Your task to perform on an android device: toggle data saver in the chrome app Image 0: 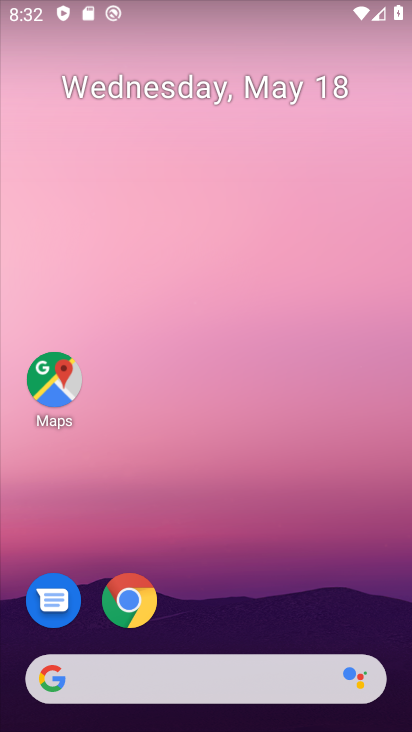
Step 0: click (130, 595)
Your task to perform on an android device: toggle data saver in the chrome app Image 1: 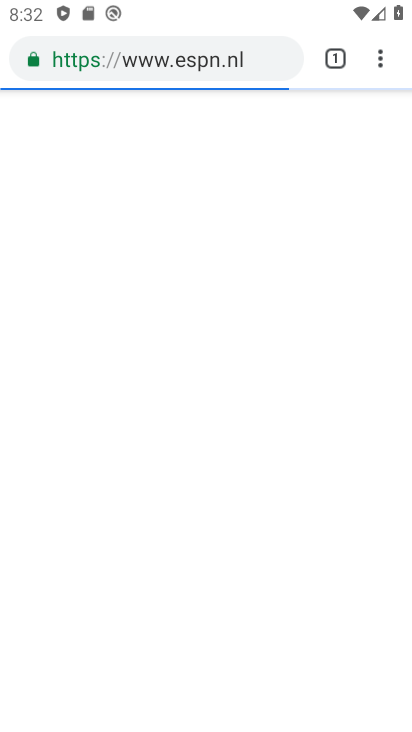
Step 1: click (379, 66)
Your task to perform on an android device: toggle data saver in the chrome app Image 2: 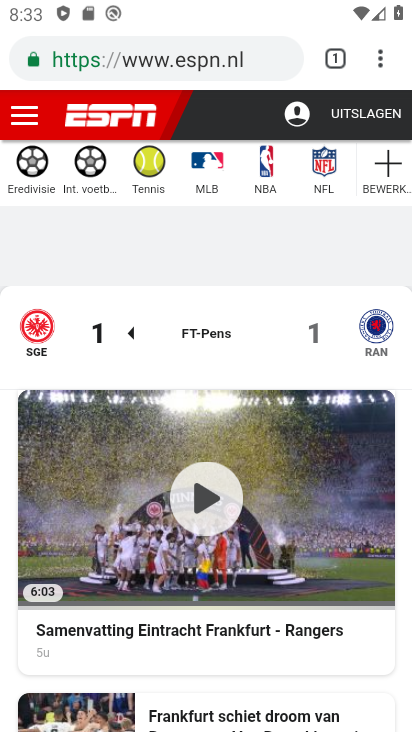
Step 2: click (378, 62)
Your task to perform on an android device: toggle data saver in the chrome app Image 3: 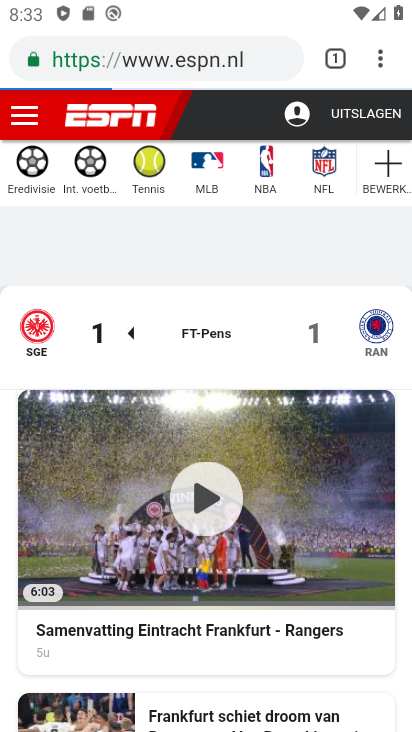
Step 3: click (377, 63)
Your task to perform on an android device: toggle data saver in the chrome app Image 4: 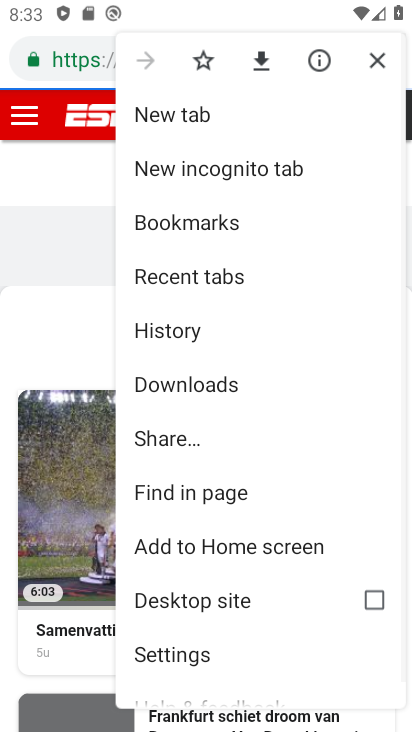
Step 4: click (181, 653)
Your task to perform on an android device: toggle data saver in the chrome app Image 5: 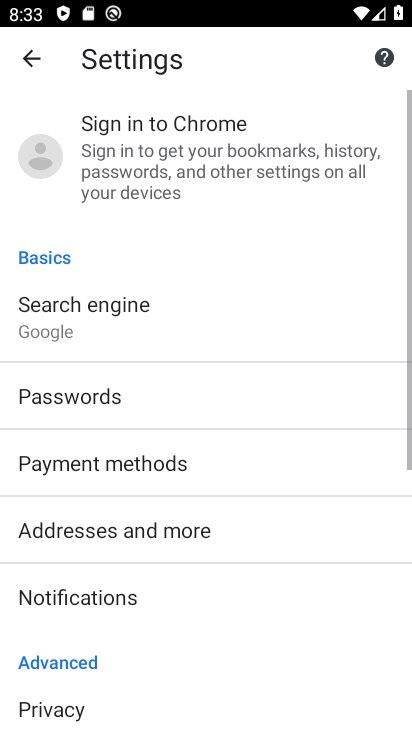
Step 5: drag from (65, 664) to (300, 206)
Your task to perform on an android device: toggle data saver in the chrome app Image 6: 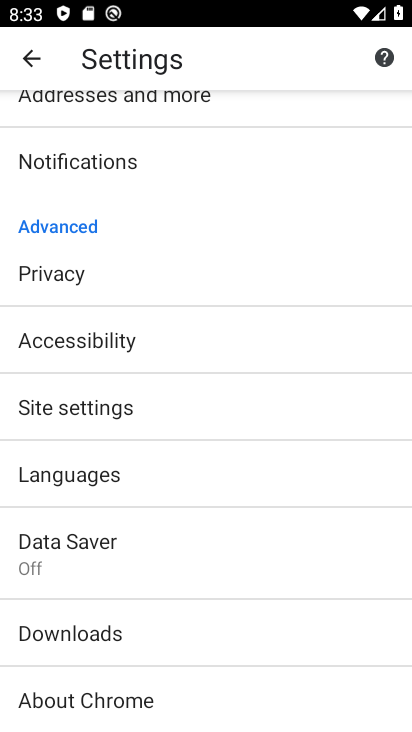
Step 6: click (81, 414)
Your task to perform on an android device: toggle data saver in the chrome app Image 7: 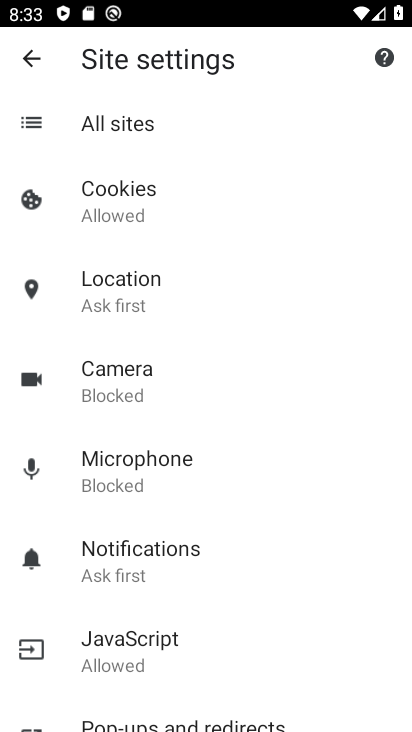
Step 7: drag from (147, 656) to (327, 91)
Your task to perform on an android device: toggle data saver in the chrome app Image 8: 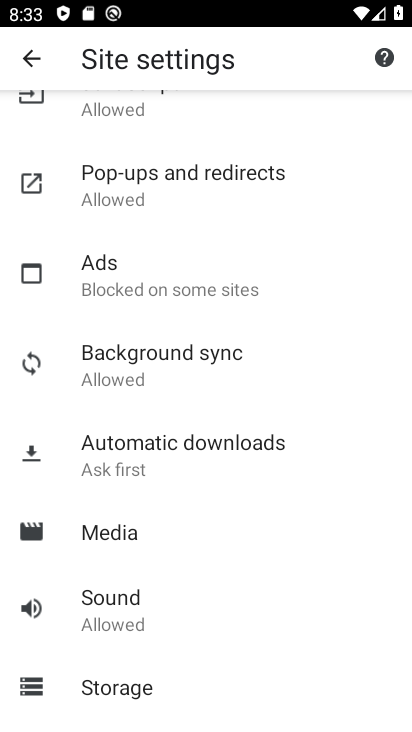
Step 8: drag from (132, 700) to (325, 217)
Your task to perform on an android device: toggle data saver in the chrome app Image 9: 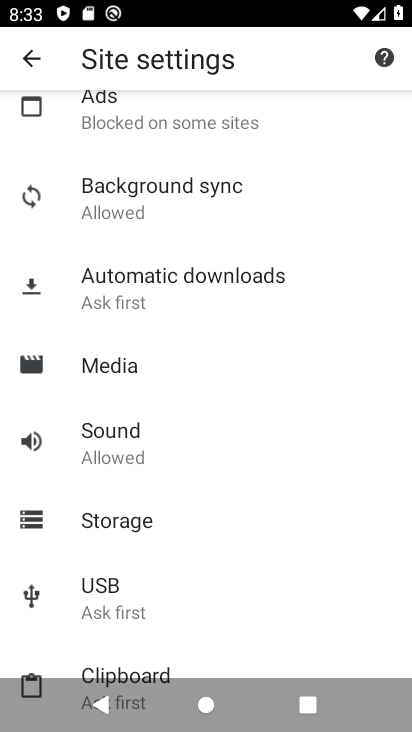
Step 9: press back button
Your task to perform on an android device: toggle data saver in the chrome app Image 10: 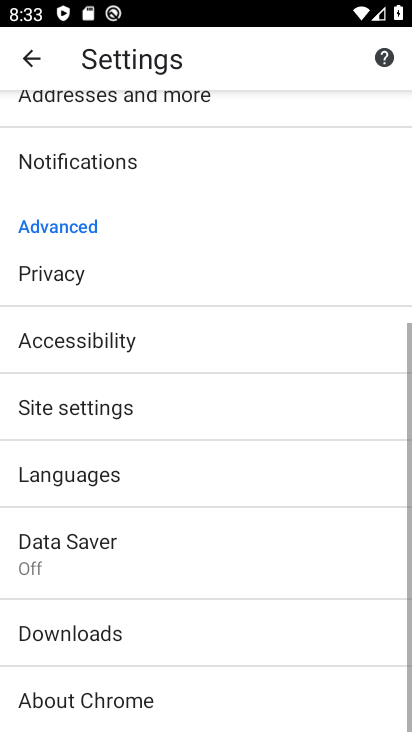
Step 10: click (105, 550)
Your task to perform on an android device: toggle data saver in the chrome app Image 11: 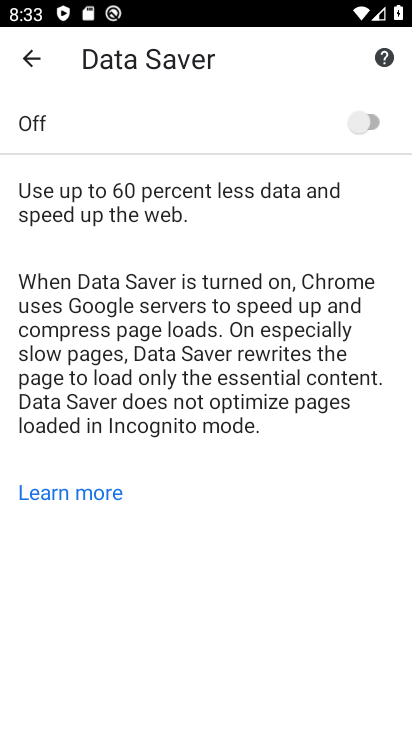
Step 11: click (367, 129)
Your task to perform on an android device: toggle data saver in the chrome app Image 12: 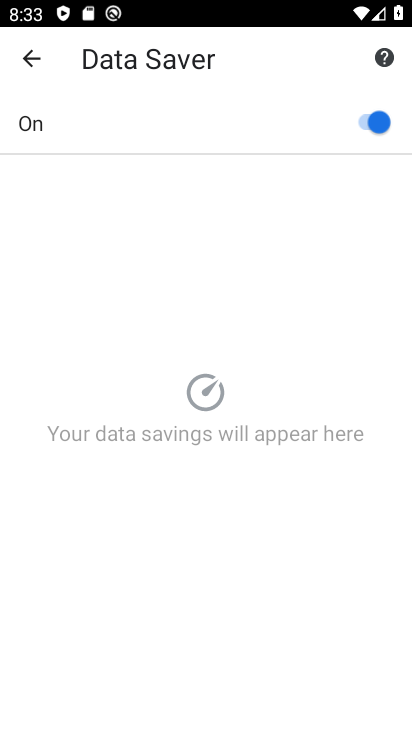
Step 12: task complete